Your task to perform on an android device: What's the weather going to be this weekend? Image 0: 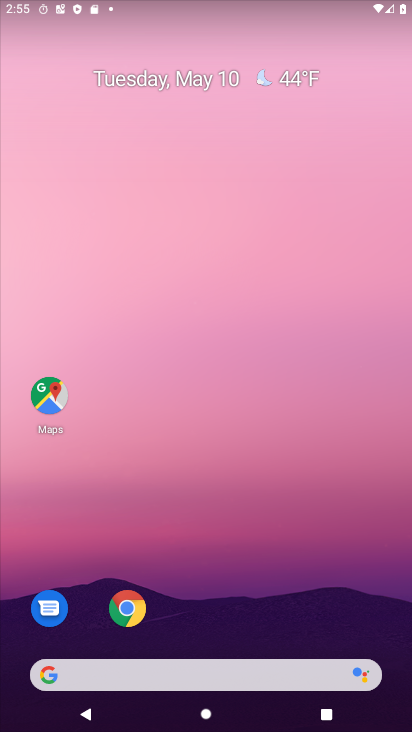
Step 0: click (300, 79)
Your task to perform on an android device: What's the weather going to be this weekend? Image 1: 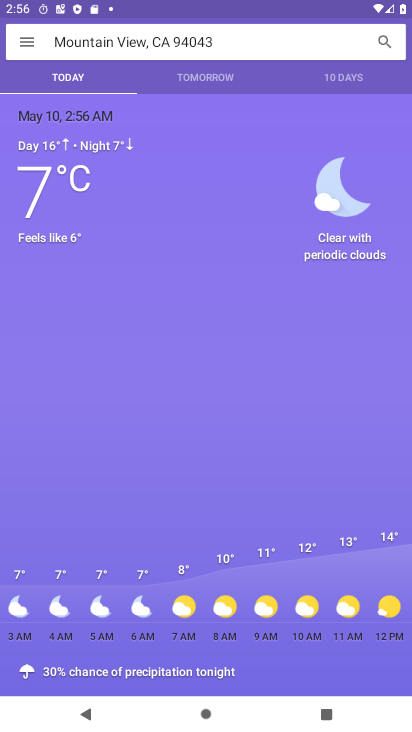
Step 1: click (322, 78)
Your task to perform on an android device: What's the weather going to be this weekend? Image 2: 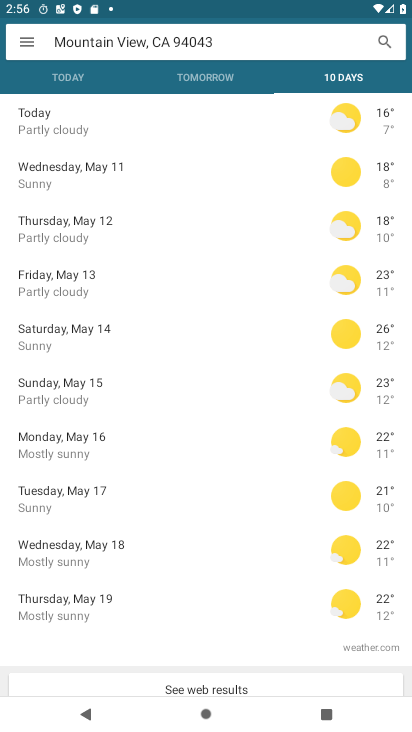
Step 2: task complete